Your task to perform on an android device: open app "Paramount+ | Peak Streaming" (install if not already installed), go to login, and select forgot password Image 0: 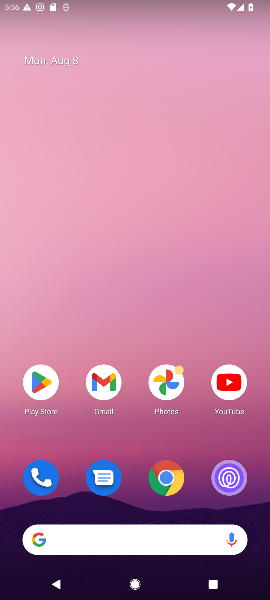
Step 0: click (39, 381)
Your task to perform on an android device: open app "Paramount+ | Peak Streaming" (install if not already installed), go to login, and select forgot password Image 1: 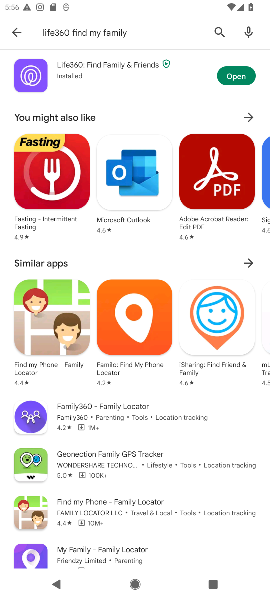
Step 1: click (172, 30)
Your task to perform on an android device: open app "Paramount+ | Peak Streaming" (install if not already installed), go to login, and select forgot password Image 2: 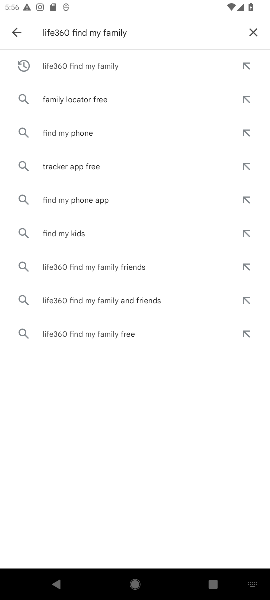
Step 2: click (254, 28)
Your task to perform on an android device: open app "Paramount+ | Peak Streaming" (install if not already installed), go to login, and select forgot password Image 3: 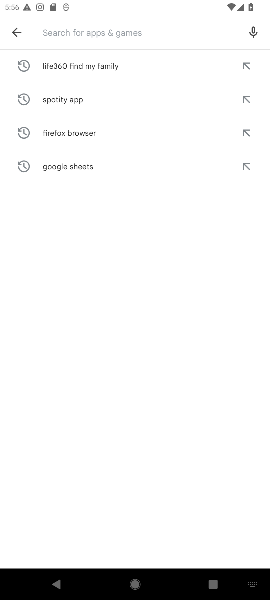
Step 3: type "paramount+| "
Your task to perform on an android device: open app "Paramount+ | Peak Streaming" (install if not already installed), go to login, and select forgot password Image 4: 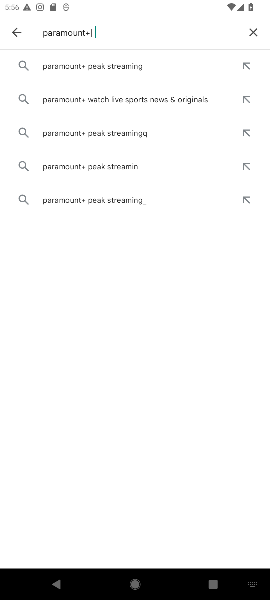
Step 4: click (106, 69)
Your task to perform on an android device: open app "Paramount+ | Peak Streaming" (install if not already installed), go to login, and select forgot password Image 5: 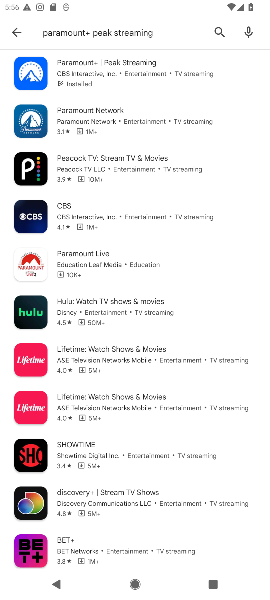
Step 5: click (105, 69)
Your task to perform on an android device: open app "Paramount+ | Peak Streaming" (install if not already installed), go to login, and select forgot password Image 6: 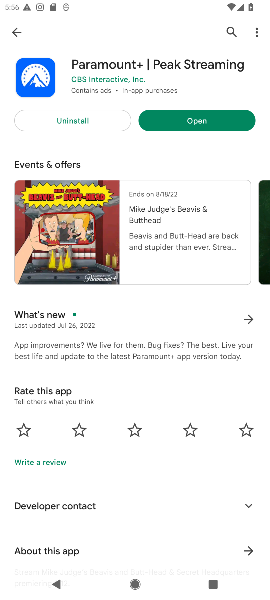
Step 6: click (163, 125)
Your task to perform on an android device: open app "Paramount+ | Peak Streaming" (install if not already installed), go to login, and select forgot password Image 7: 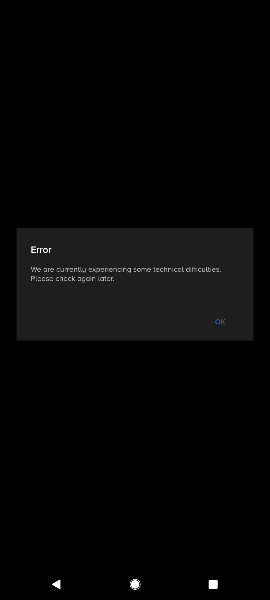
Step 7: click (221, 322)
Your task to perform on an android device: open app "Paramount+ | Peak Streaming" (install if not already installed), go to login, and select forgot password Image 8: 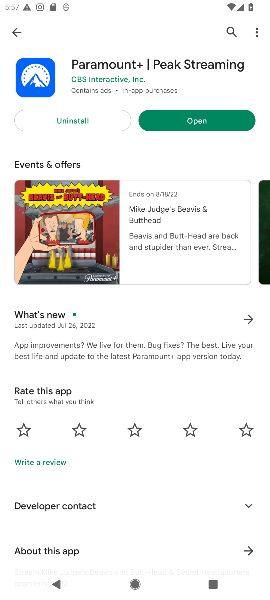
Step 8: click (222, 122)
Your task to perform on an android device: open app "Paramount+ | Peak Streaming" (install if not already installed), go to login, and select forgot password Image 9: 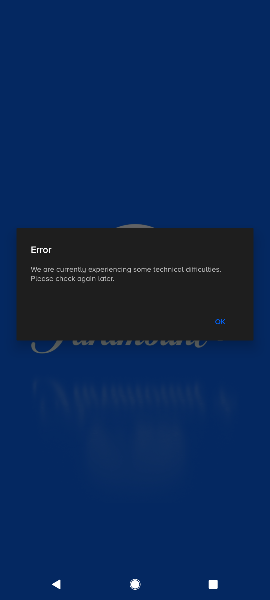
Step 9: task complete